Your task to perform on an android device: Open Google Maps and go to "Timeline" Image 0: 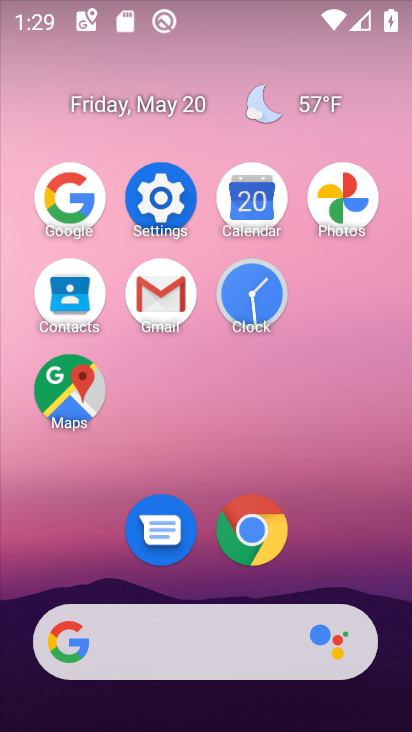
Step 0: click (73, 390)
Your task to perform on an android device: Open Google Maps and go to "Timeline" Image 1: 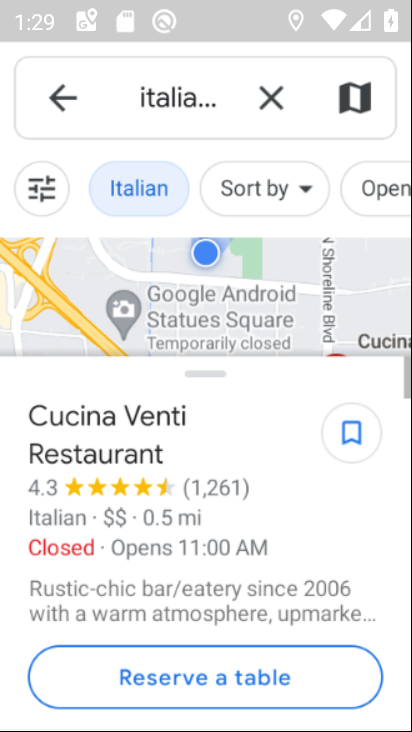
Step 1: click (46, 95)
Your task to perform on an android device: Open Google Maps and go to "Timeline" Image 2: 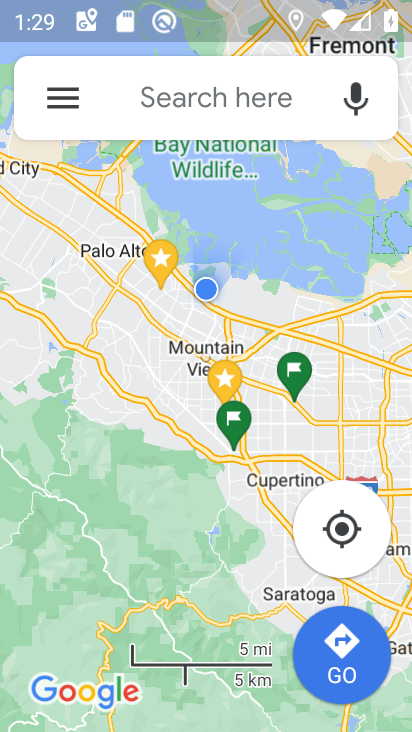
Step 2: click (46, 95)
Your task to perform on an android device: Open Google Maps and go to "Timeline" Image 3: 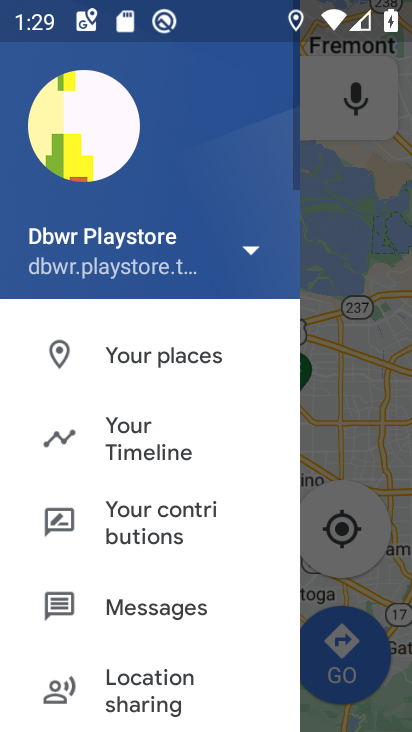
Step 3: click (177, 437)
Your task to perform on an android device: Open Google Maps and go to "Timeline" Image 4: 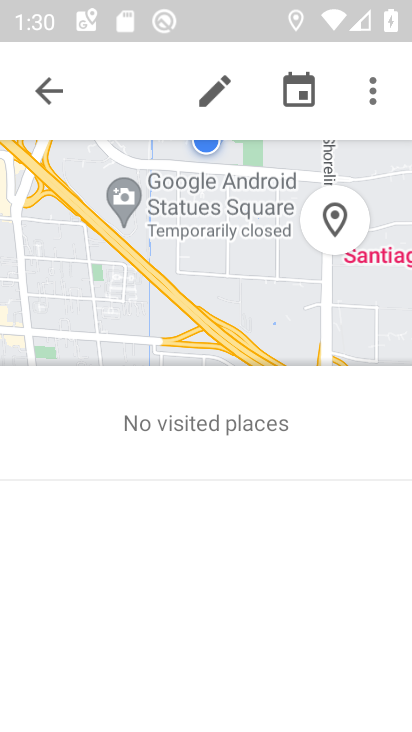
Step 4: task complete